Your task to perform on an android device: turn on translation in the chrome app Image 0: 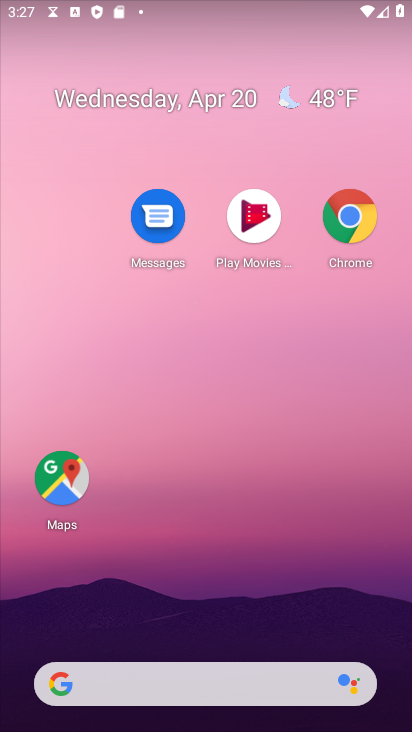
Step 0: click (356, 225)
Your task to perform on an android device: turn on translation in the chrome app Image 1: 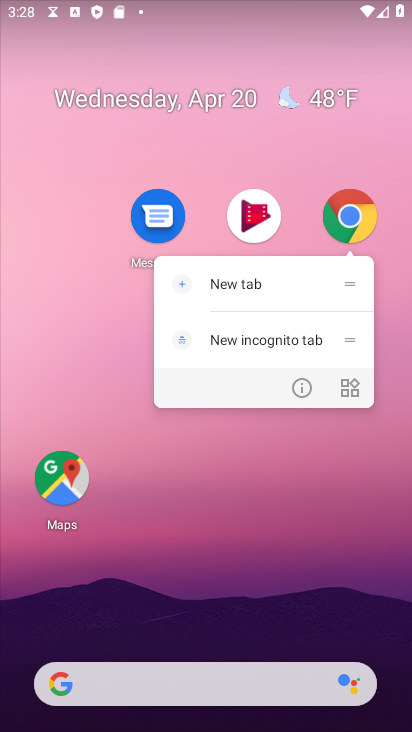
Step 1: click (297, 384)
Your task to perform on an android device: turn on translation in the chrome app Image 2: 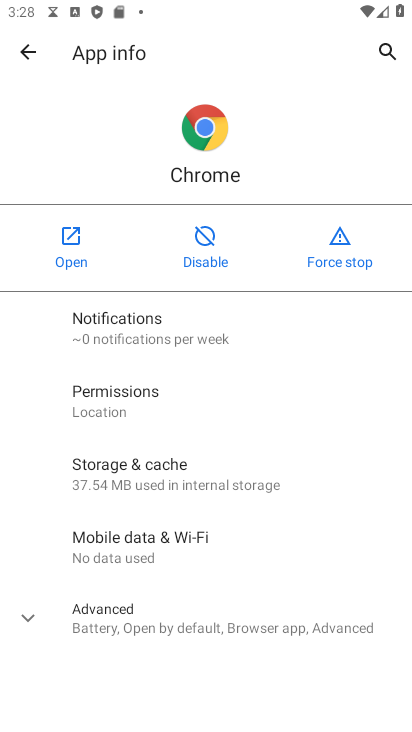
Step 2: click (60, 245)
Your task to perform on an android device: turn on translation in the chrome app Image 3: 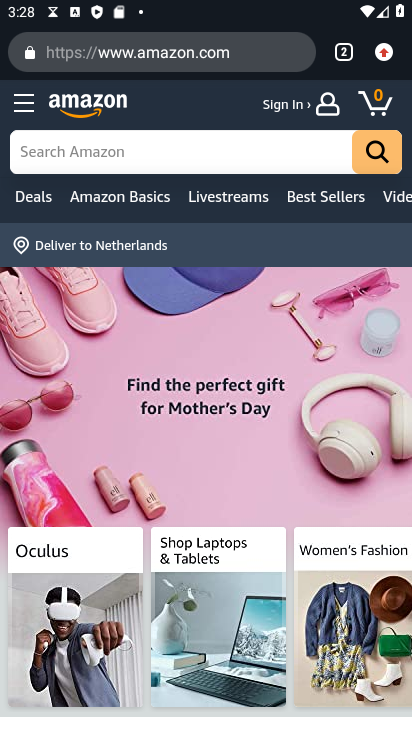
Step 3: click (387, 52)
Your task to perform on an android device: turn on translation in the chrome app Image 4: 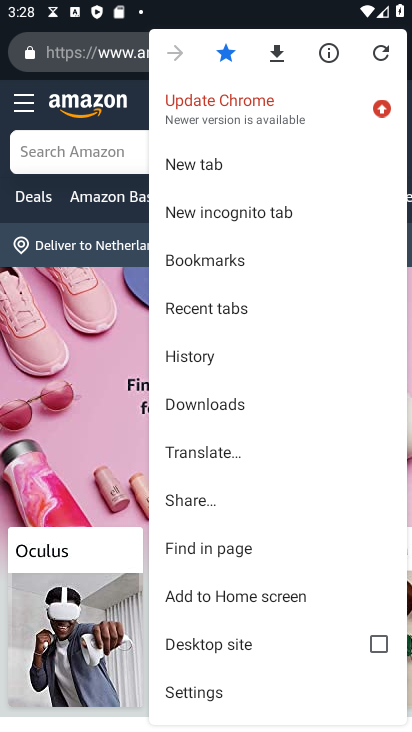
Step 4: click (234, 696)
Your task to perform on an android device: turn on translation in the chrome app Image 5: 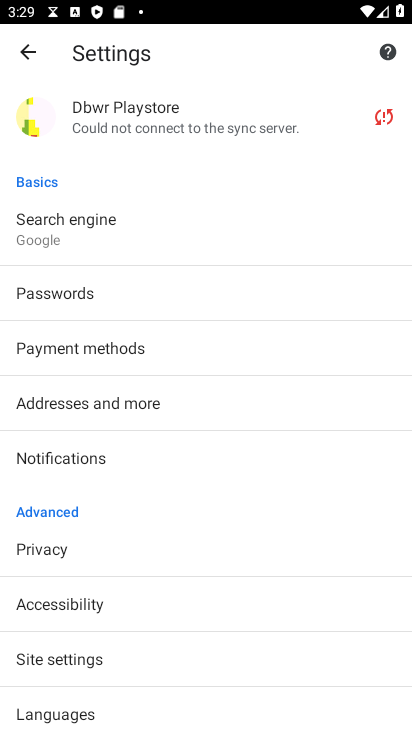
Step 5: drag from (157, 673) to (176, 471)
Your task to perform on an android device: turn on translation in the chrome app Image 6: 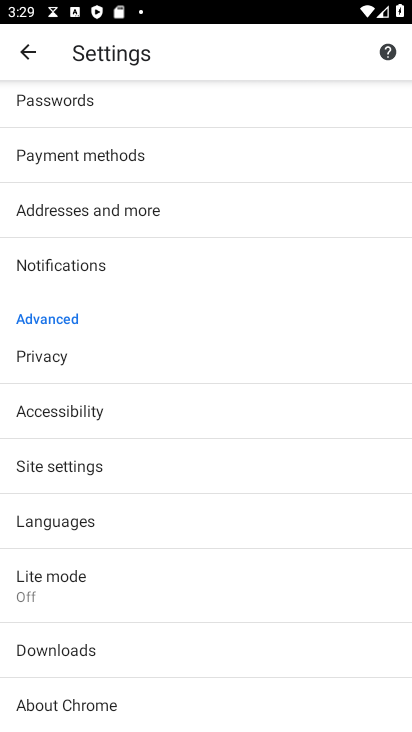
Step 6: drag from (194, 632) to (175, 361)
Your task to perform on an android device: turn on translation in the chrome app Image 7: 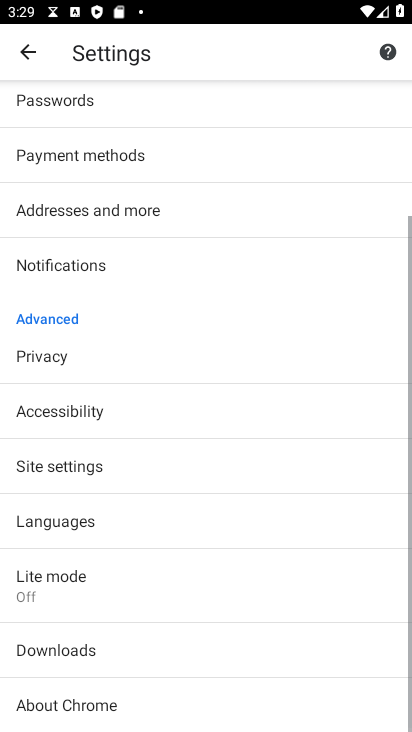
Step 7: drag from (189, 334) to (219, 612)
Your task to perform on an android device: turn on translation in the chrome app Image 8: 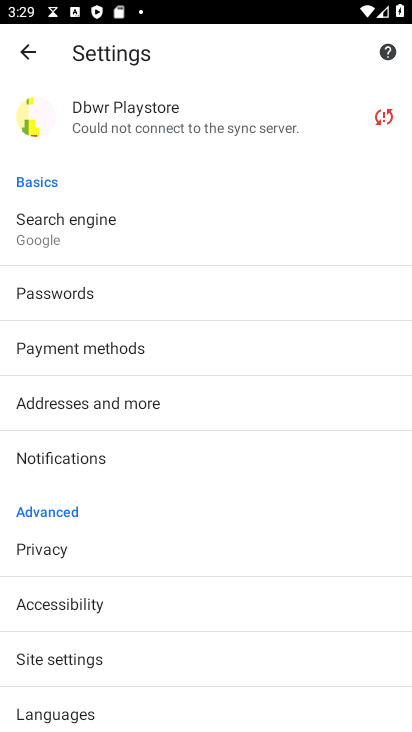
Step 8: click (116, 715)
Your task to perform on an android device: turn on translation in the chrome app Image 9: 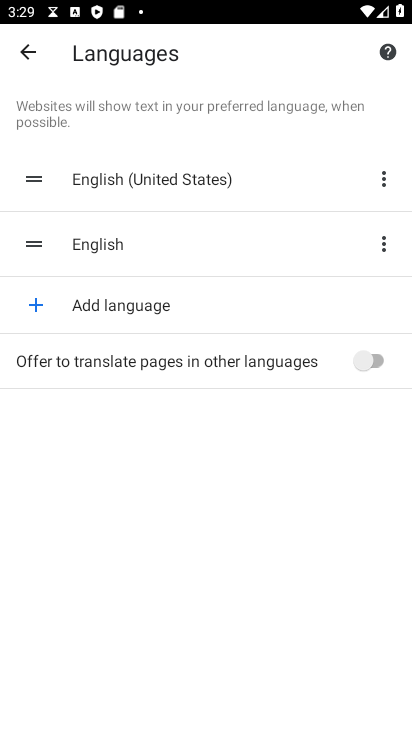
Step 9: click (360, 367)
Your task to perform on an android device: turn on translation in the chrome app Image 10: 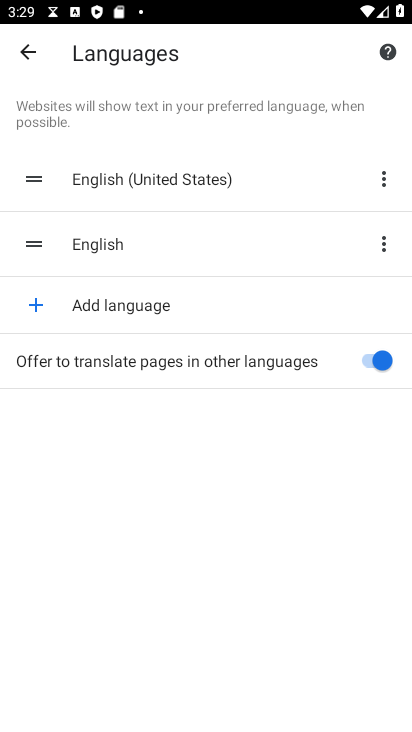
Step 10: task complete